Your task to perform on an android device: Go to notification settings Image 0: 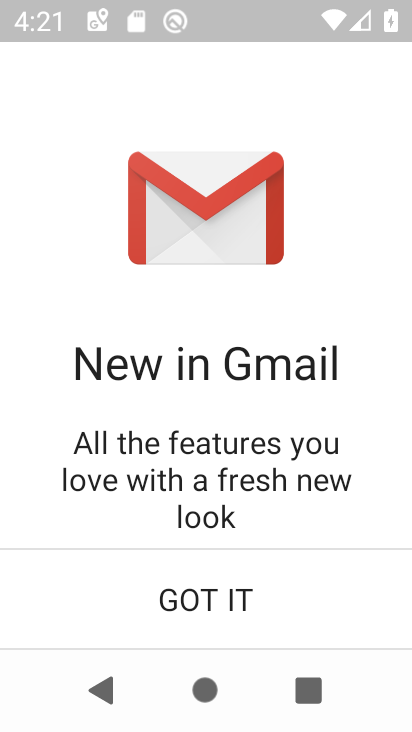
Step 0: press home button
Your task to perform on an android device: Go to notification settings Image 1: 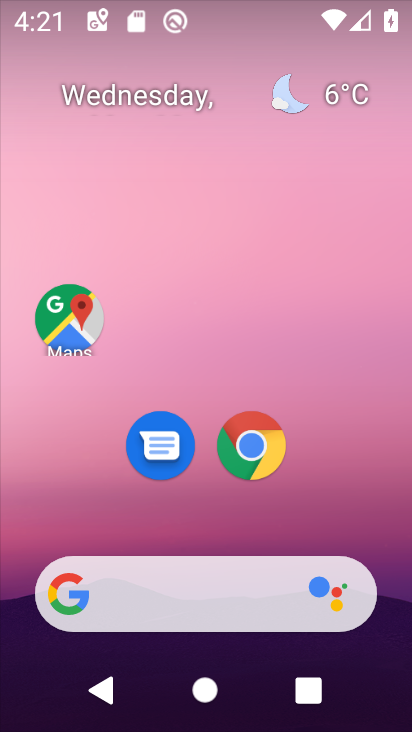
Step 1: drag from (179, 587) to (141, 0)
Your task to perform on an android device: Go to notification settings Image 2: 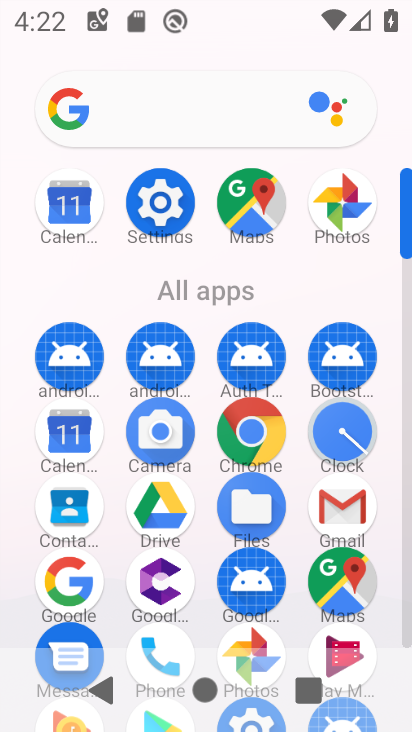
Step 2: click (153, 216)
Your task to perform on an android device: Go to notification settings Image 3: 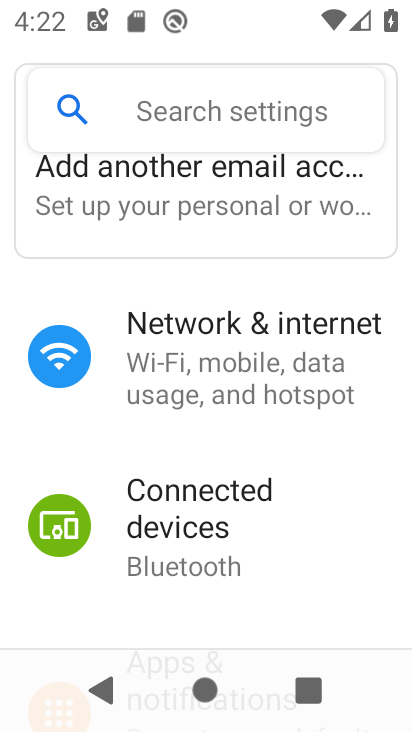
Step 3: drag from (247, 517) to (287, 243)
Your task to perform on an android device: Go to notification settings Image 4: 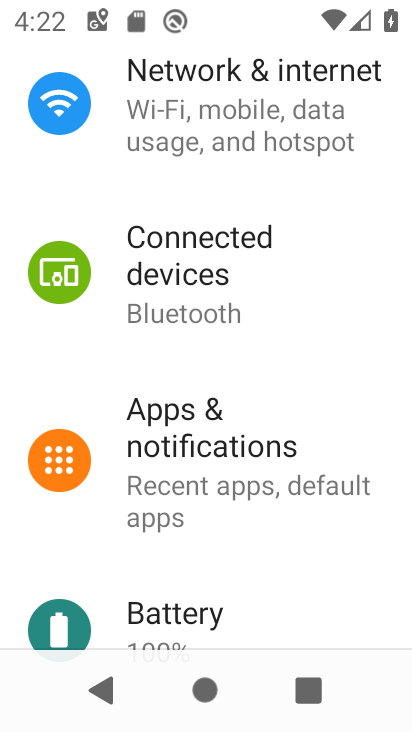
Step 4: click (220, 465)
Your task to perform on an android device: Go to notification settings Image 5: 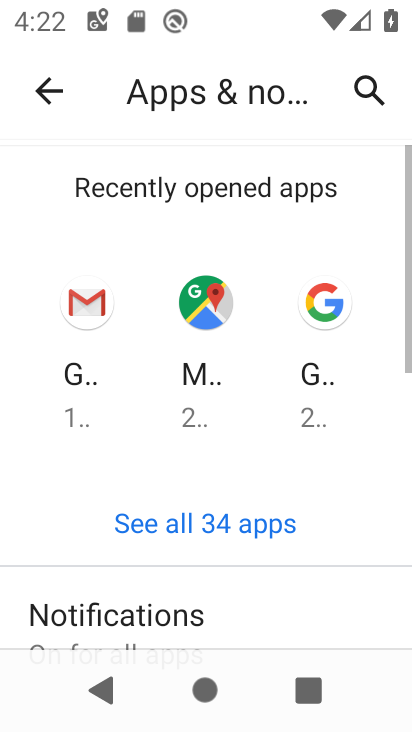
Step 5: drag from (179, 549) to (234, 169)
Your task to perform on an android device: Go to notification settings Image 6: 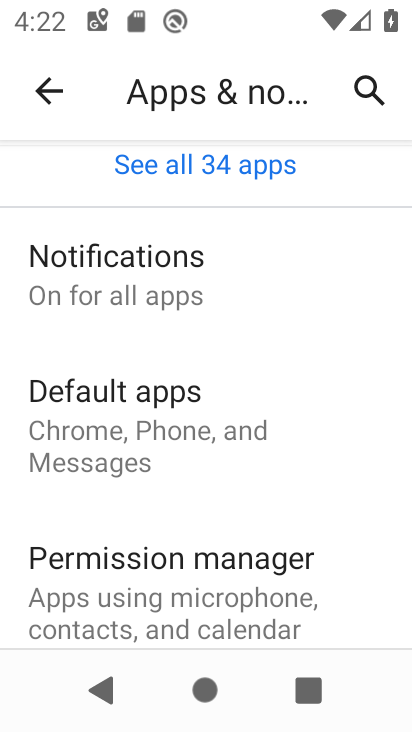
Step 6: click (153, 296)
Your task to perform on an android device: Go to notification settings Image 7: 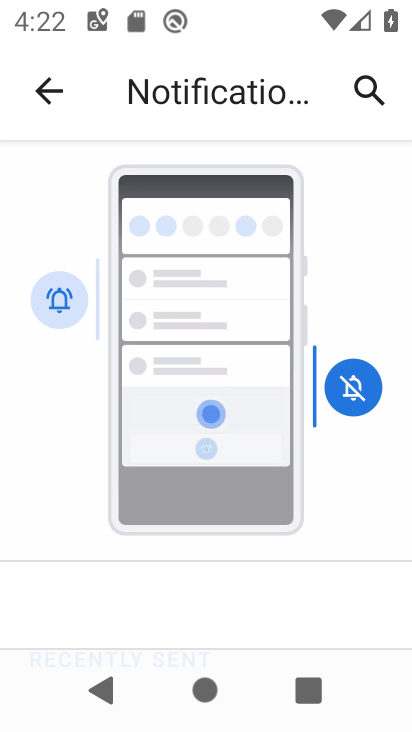
Step 7: task complete